Your task to perform on an android device: What's the weather going to be tomorrow? Image 0: 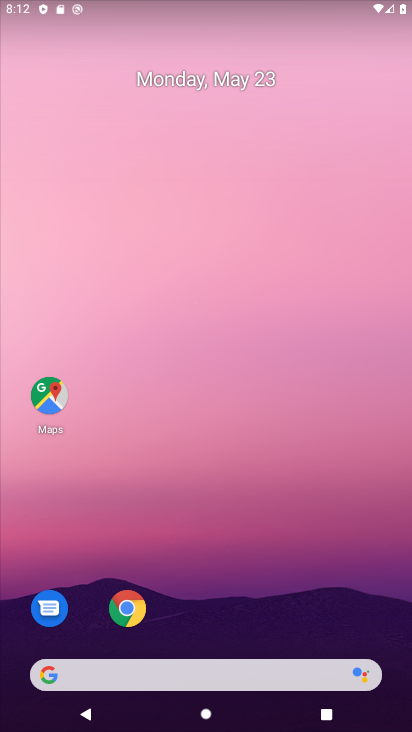
Step 0: drag from (0, 265) to (408, 275)
Your task to perform on an android device: What's the weather going to be tomorrow? Image 1: 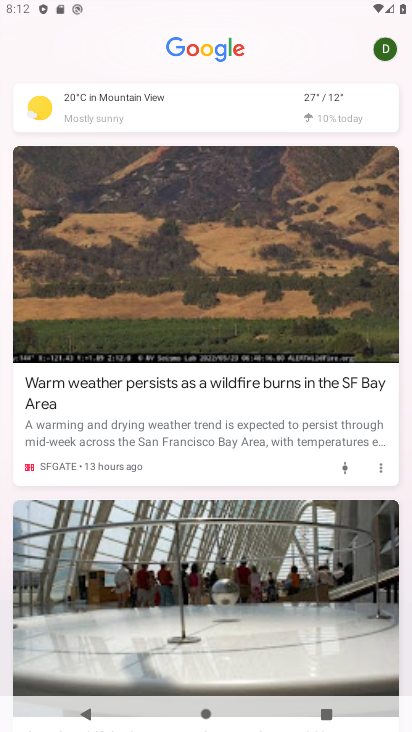
Step 1: click (293, 104)
Your task to perform on an android device: What's the weather going to be tomorrow? Image 2: 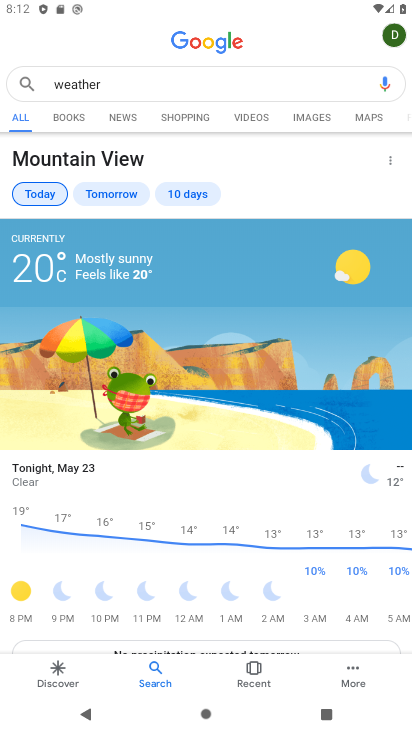
Step 2: click (116, 195)
Your task to perform on an android device: What's the weather going to be tomorrow? Image 3: 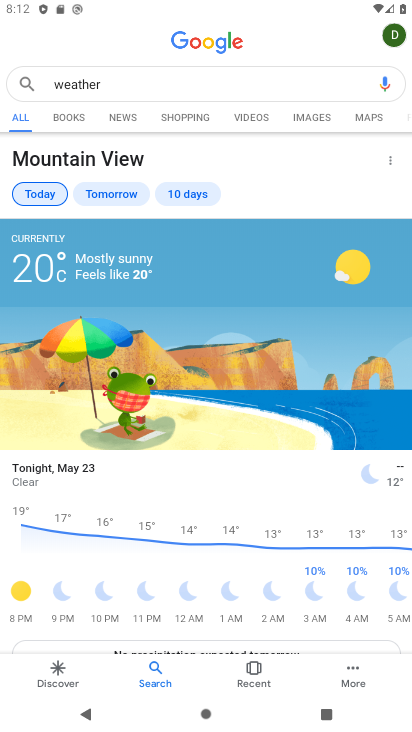
Step 3: click (194, 371)
Your task to perform on an android device: What's the weather going to be tomorrow? Image 4: 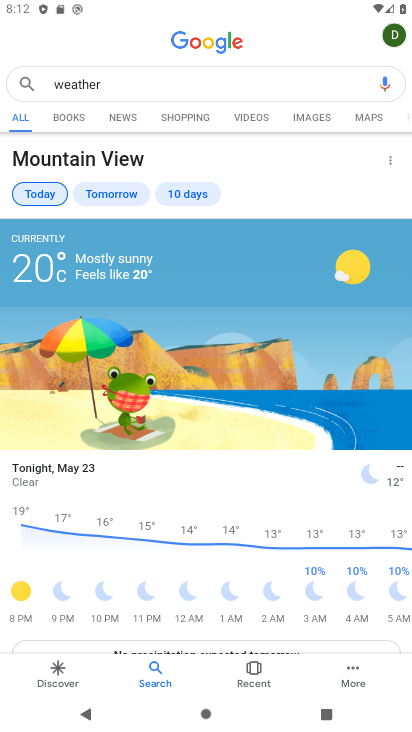
Step 4: click (284, 530)
Your task to perform on an android device: What's the weather going to be tomorrow? Image 5: 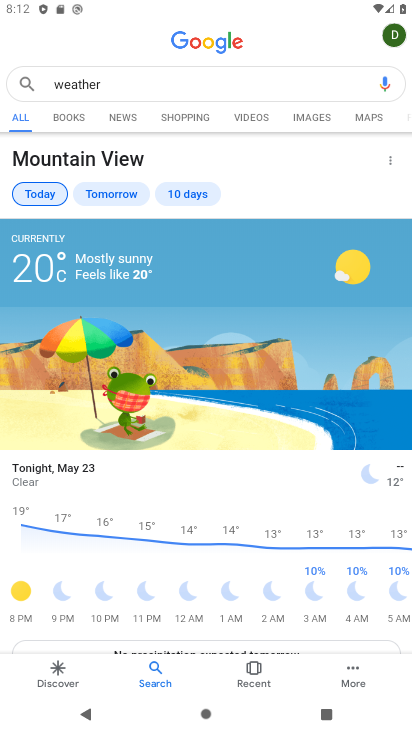
Step 5: click (109, 191)
Your task to perform on an android device: What's the weather going to be tomorrow? Image 6: 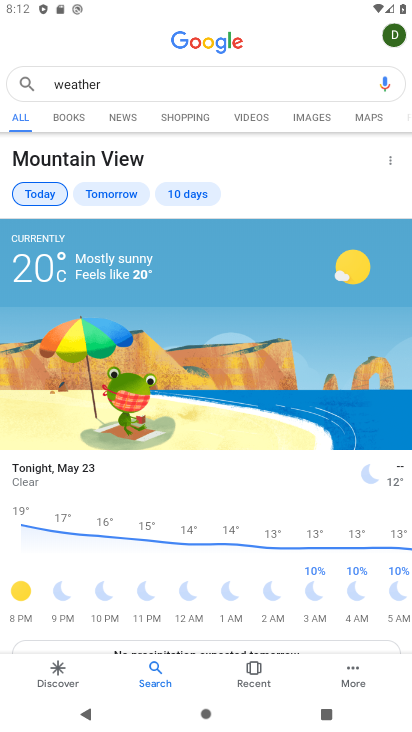
Step 6: drag from (159, 598) to (193, 151)
Your task to perform on an android device: What's the weather going to be tomorrow? Image 7: 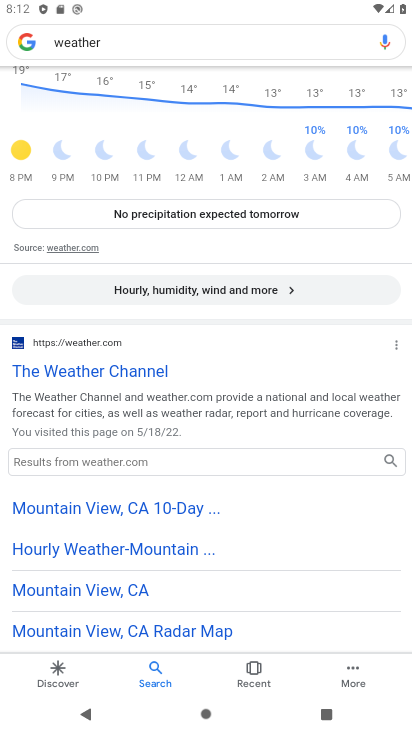
Step 7: click (142, 370)
Your task to perform on an android device: What's the weather going to be tomorrow? Image 8: 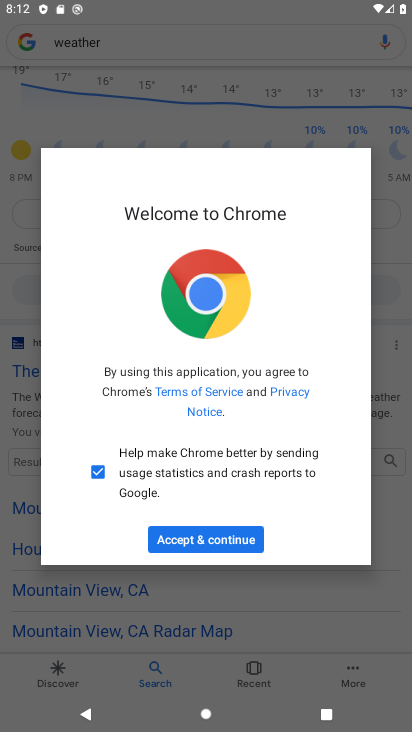
Step 8: click (247, 535)
Your task to perform on an android device: What's the weather going to be tomorrow? Image 9: 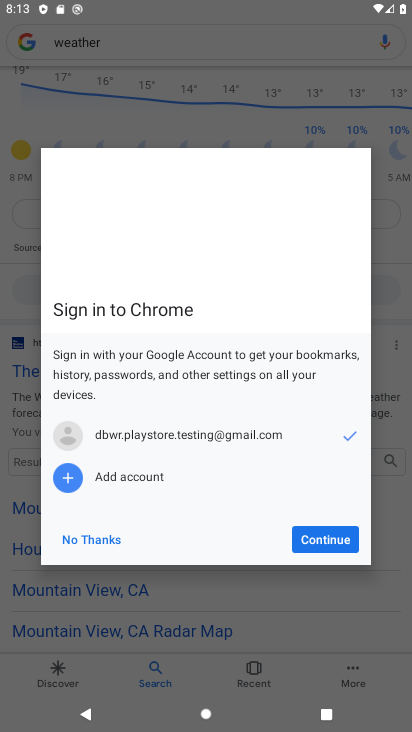
Step 9: click (319, 540)
Your task to perform on an android device: What's the weather going to be tomorrow? Image 10: 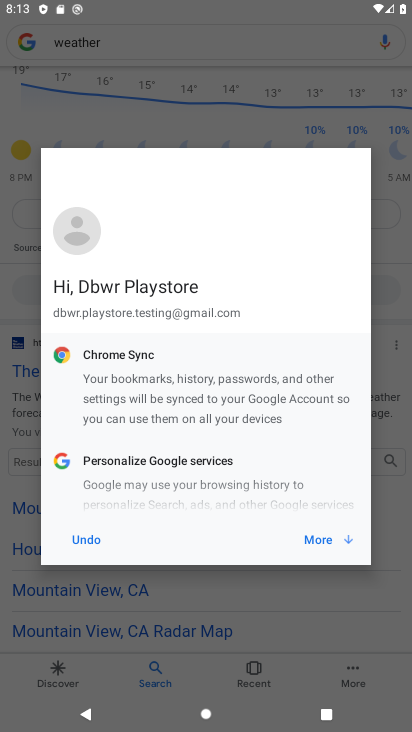
Step 10: click (319, 539)
Your task to perform on an android device: What's the weather going to be tomorrow? Image 11: 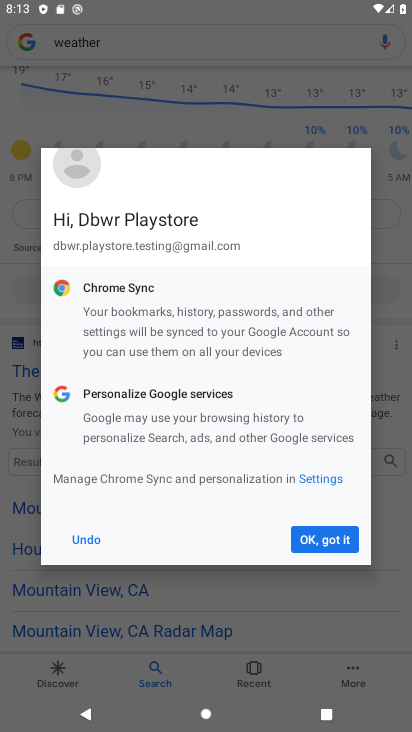
Step 11: click (317, 537)
Your task to perform on an android device: What's the weather going to be tomorrow? Image 12: 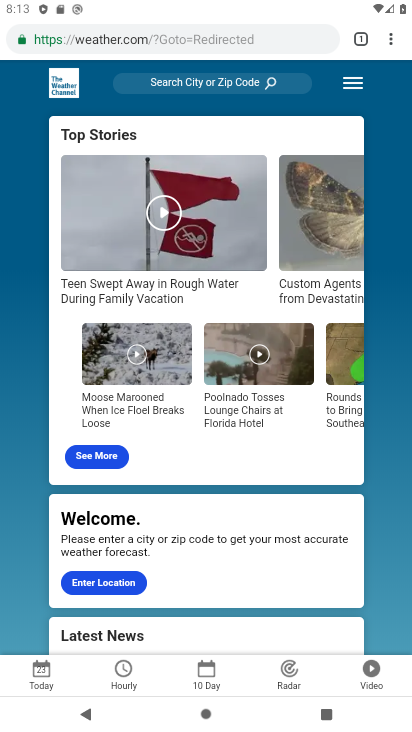
Step 12: click (204, 684)
Your task to perform on an android device: What's the weather going to be tomorrow? Image 13: 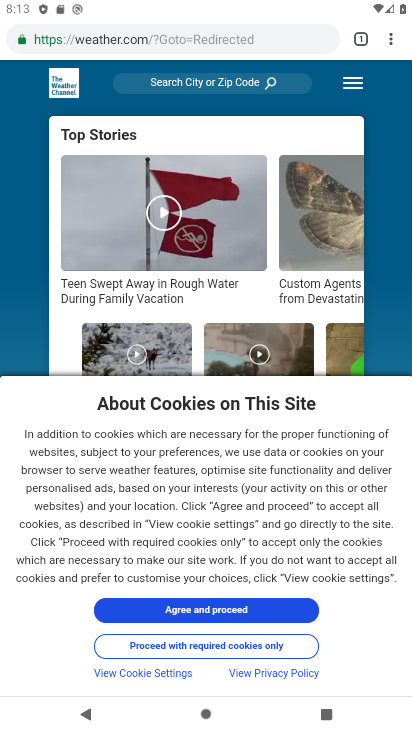
Step 13: click (210, 607)
Your task to perform on an android device: What's the weather going to be tomorrow? Image 14: 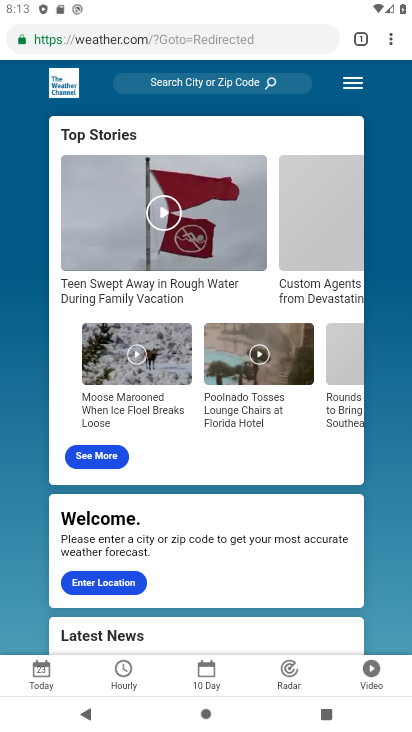
Step 14: click (202, 677)
Your task to perform on an android device: What's the weather going to be tomorrow? Image 15: 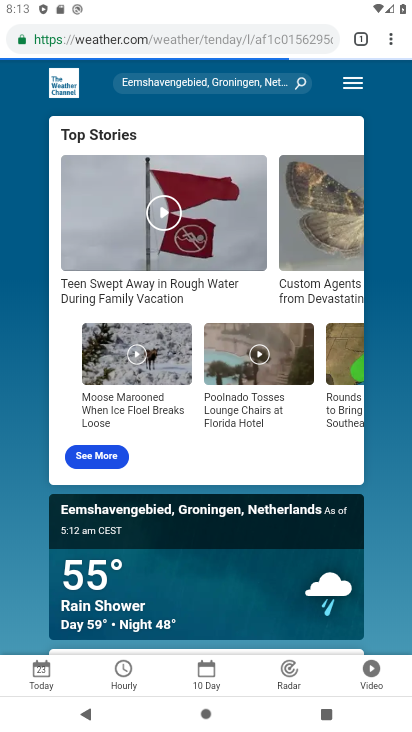
Step 15: task complete